Your task to perform on an android device: See recent photos Image 0: 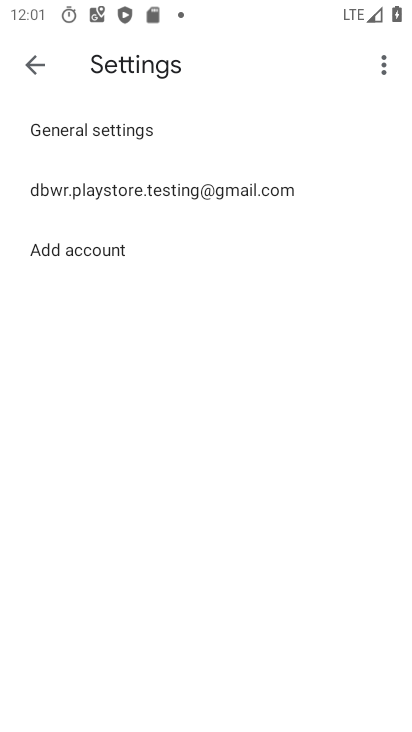
Step 0: press home button
Your task to perform on an android device: See recent photos Image 1: 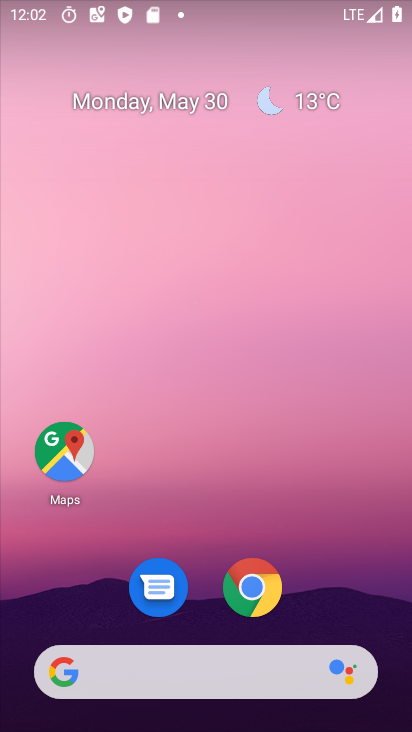
Step 1: drag from (378, 551) to (391, 21)
Your task to perform on an android device: See recent photos Image 2: 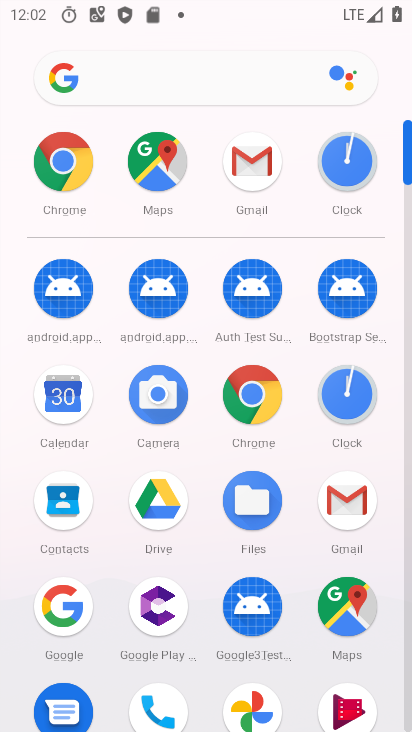
Step 2: click (243, 714)
Your task to perform on an android device: See recent photos Image 3: 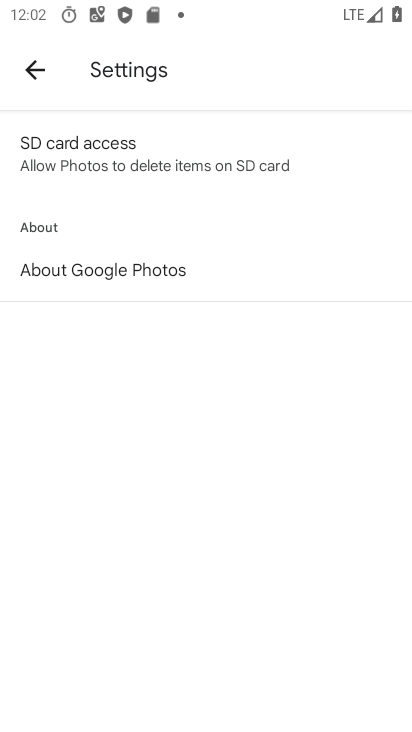
Step 3: click (26, 64)
Your task to perform on an android device: See recent photos Image 4: 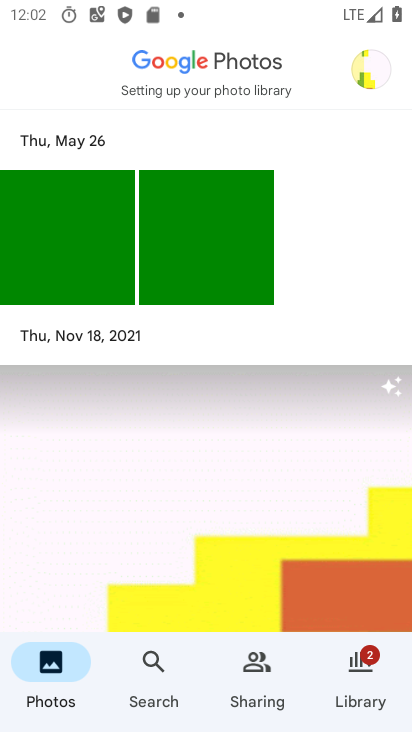
Step 4: task complete